Your task to perform on an android device: Open settings on Google Maps Image 0: 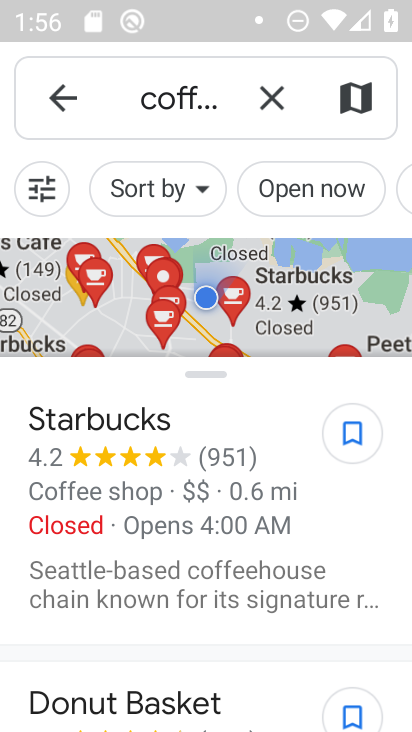
Step 0: click (273, 102)
Your task to perform on an android device: Open settings on Google Maps Image 1: 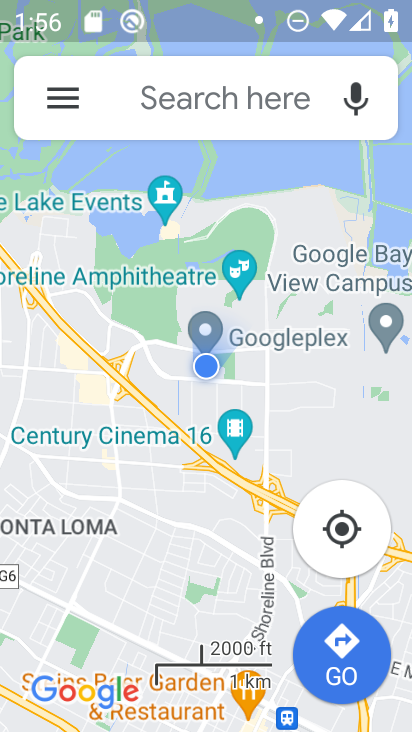
Step 1: click (184, 100)
Your task to perform on an android device: Open settings on Google Maps Image 2: 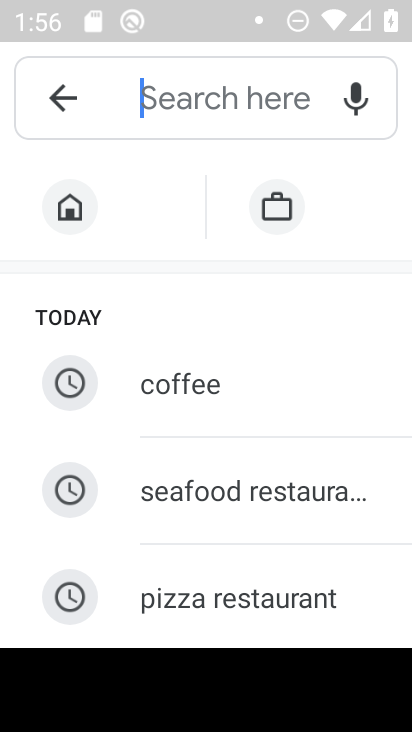
Step 2: type "Google Maps"
Your task to perform on an android device: Open settings on Google Maps Image 3: 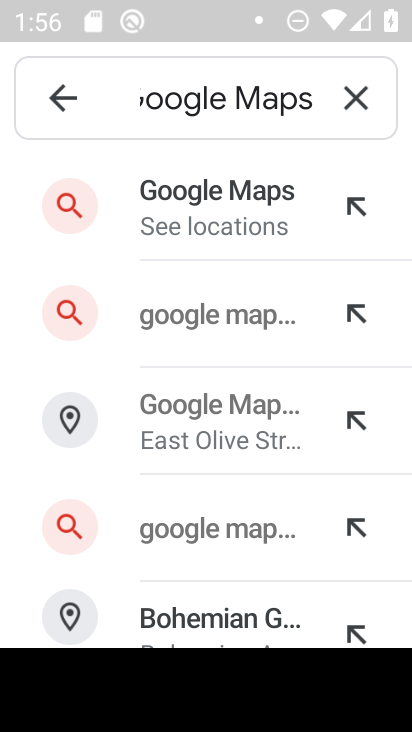
Step 3: press home button
Your task to perform on an android device: Open settings on Google Maps Image 4: 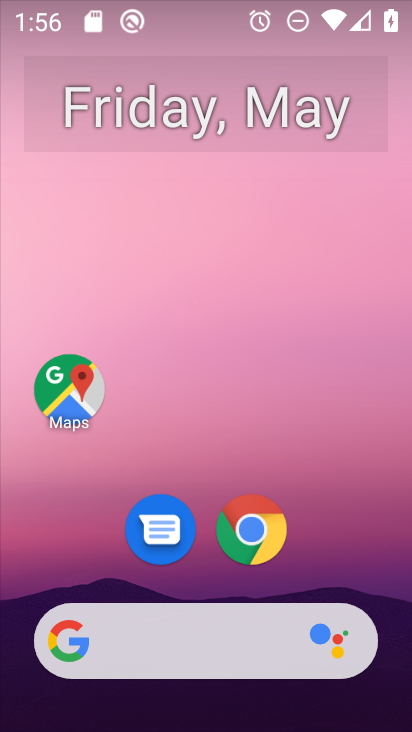
Step 4: click (72, 398)
Your task to perform on an android device: Open settings on Google Maps Image 5: 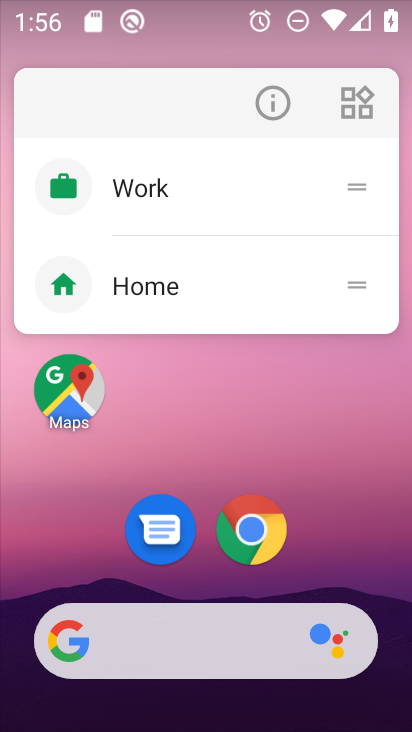
Step 5: click (72, 397)
Your task to perform on an android device: Open settings on Google Maps Image 6: 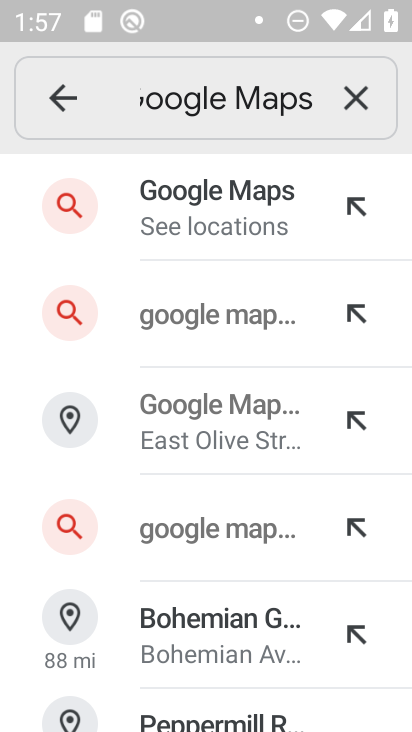
Step 6: click (180, 208)
Your task to perform on an android device: Open settings on Google Maps Image 7: 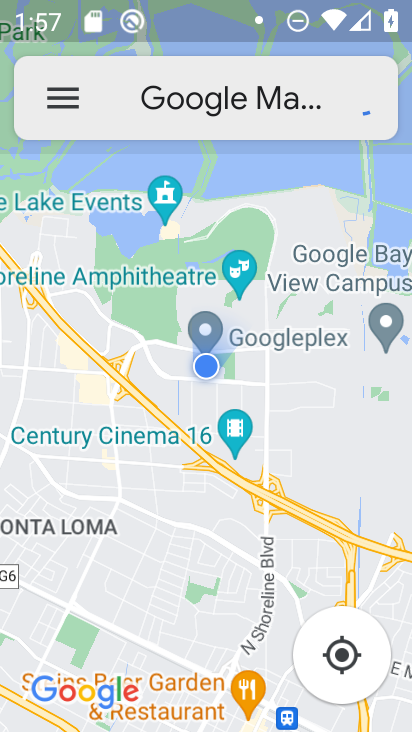
Step 7: press home button
Your task to perform on an android device: Open settings on Google Maps Image 8: 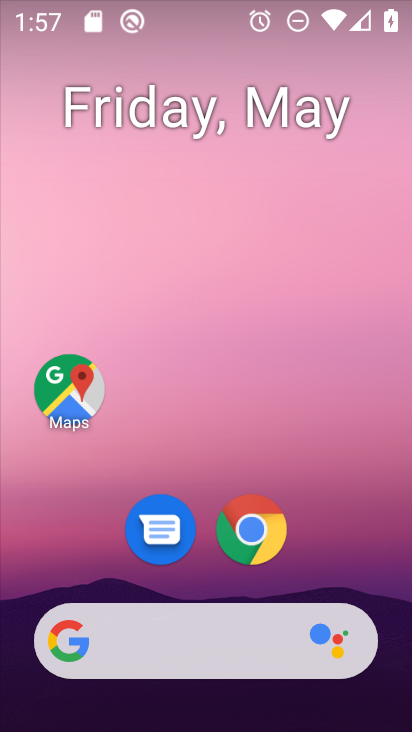
Step 8: click (82, 392)
Your task to perform on an android device: Open settings on Google Maps Image 9: 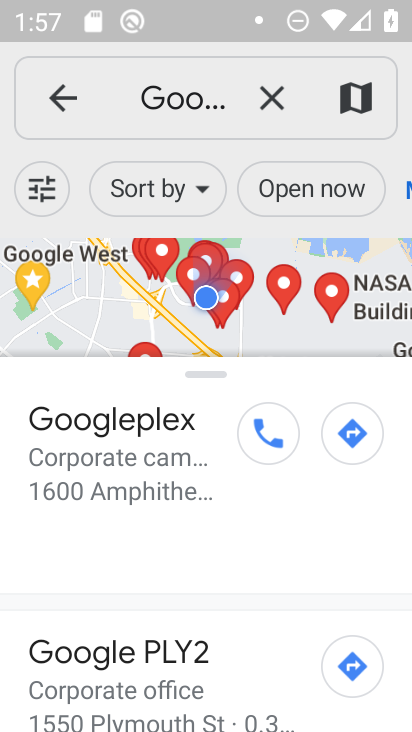
Step 9: task complete